Your task to perform on an android device: Open Amazon Image 0: 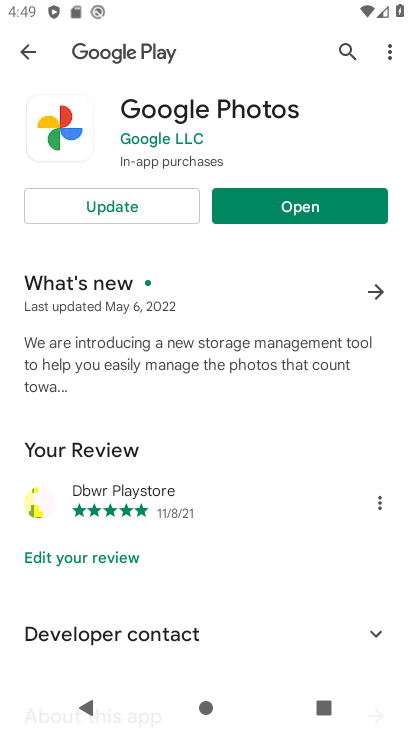
Step 0: press home button
Your task to perform on an android device: Open Amazon Image 1: 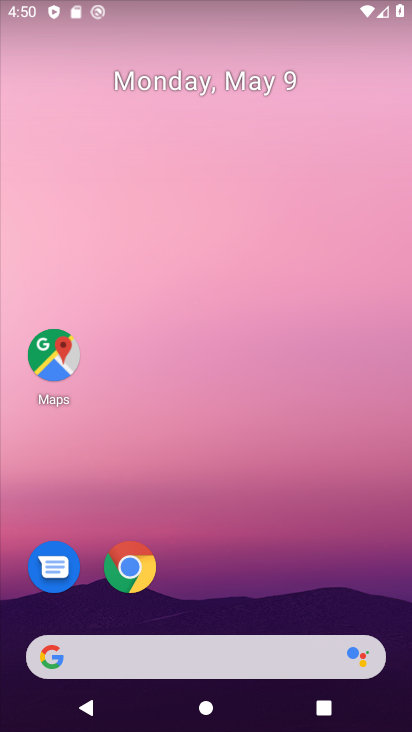
Step 1: click (134, 588)
Your task to perform on an android device: Open Amazon Image 2: 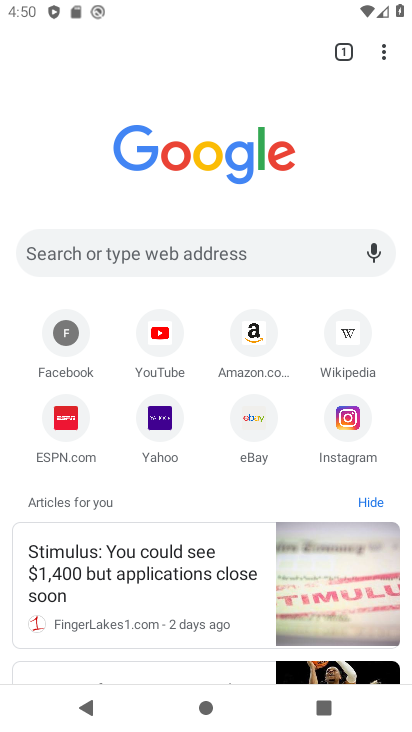
Step 2: click (280, 330)
Your task to perform on an android device: Open Amazon Image 3: 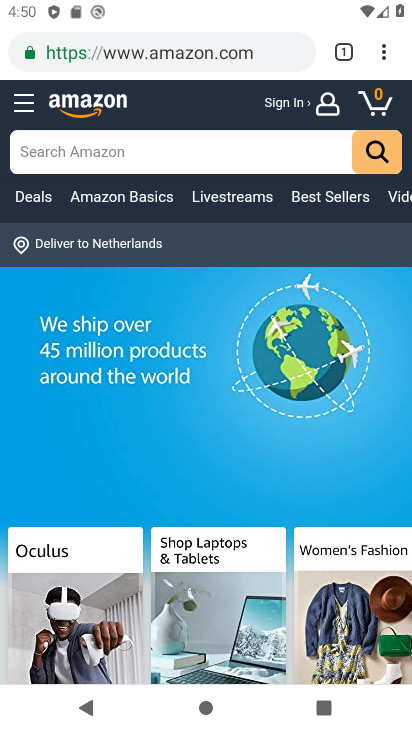
Step 3: task complete